Your task to perform on an android device: turn on sleep mode Image 0: 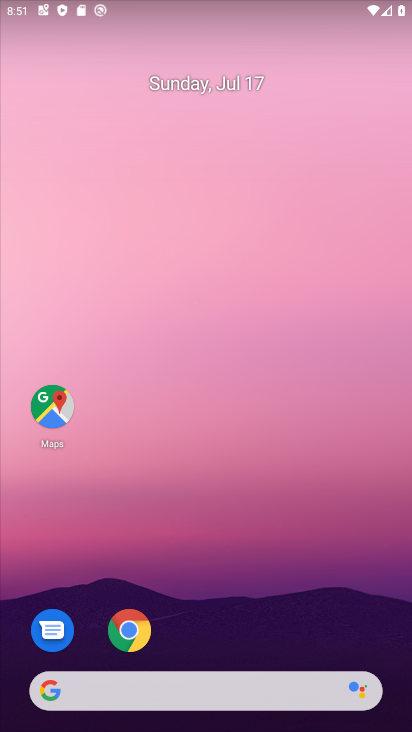
Step 0: drag from (348, 607) to (370, 66)
Your task to perform on an android device: turn on sleep mode Image 1: 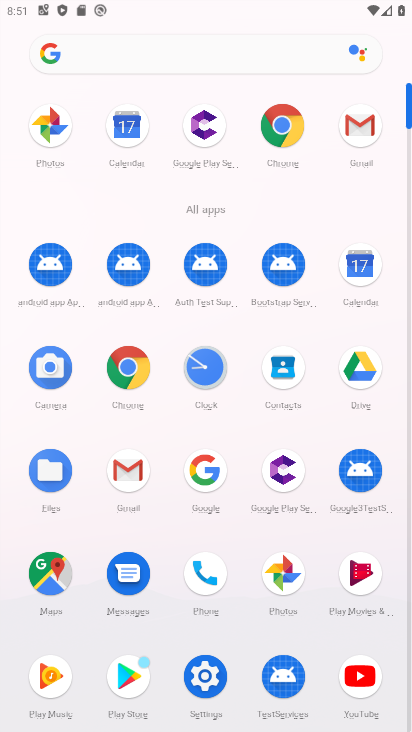
Step 1: click (205, 673)
Your task to perform on an android device: turn on sleep mode Image 2: 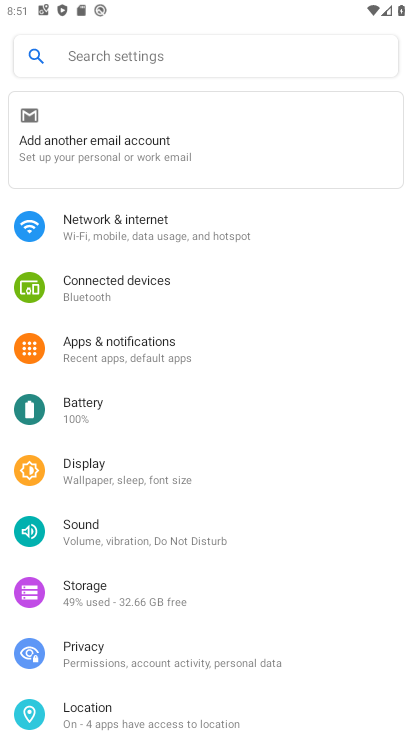
Step 2: drag from (363, 575) to (367, 471)
Your task to perform on an android device: turn on sleep mode Image 3: 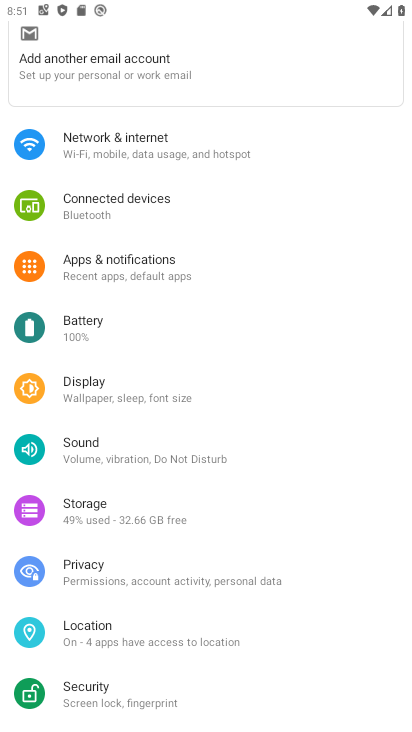
Step 3: drag from (345, 587) to (338, 483)
Your task to perform on an android device: turn on sleep mode Image 4: 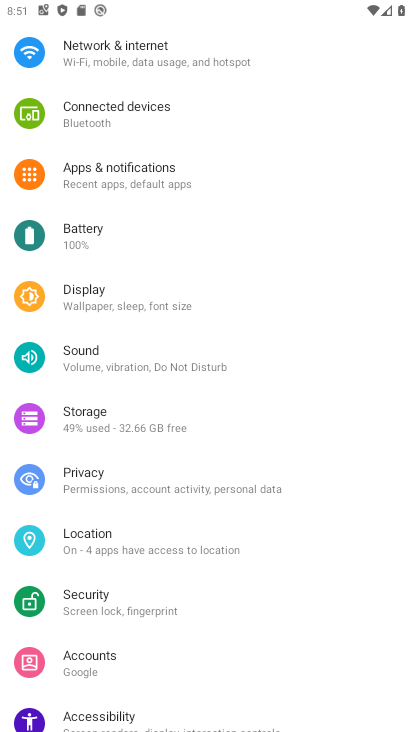
Step 4: drag from (334, 590) to (333, 473)
Your task to perform on an android device: turn on sleep mode Image 5: 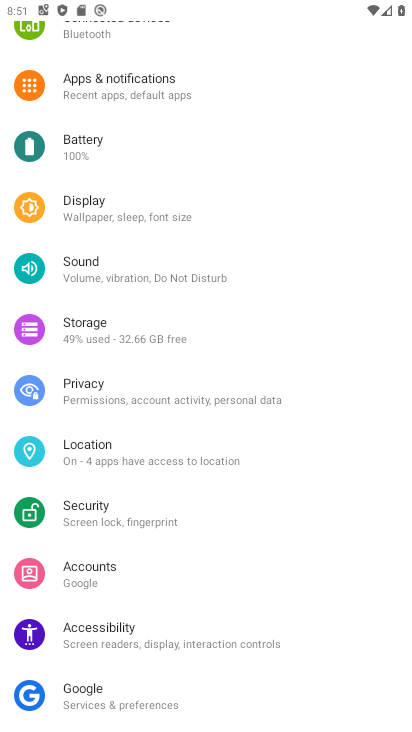
Step 5: drag from (345, 633) to (346, 492)
Your task to perform on an android device: turn on sleep mode Image 6: 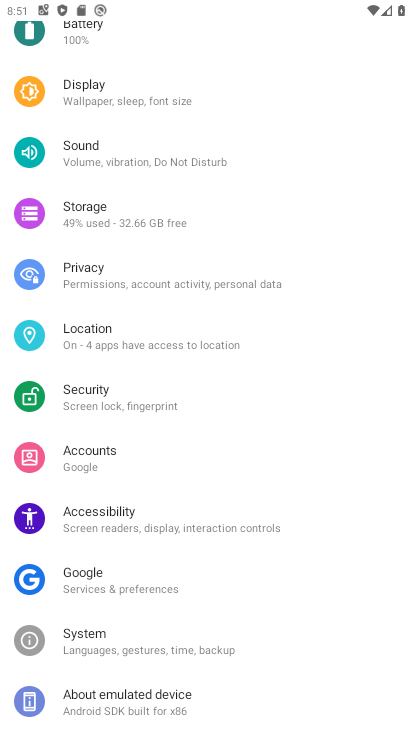
Step 6: drag from (327, 573) to (326, 450)
Your task to perform on an android device: turn on sleep mode Image 7: 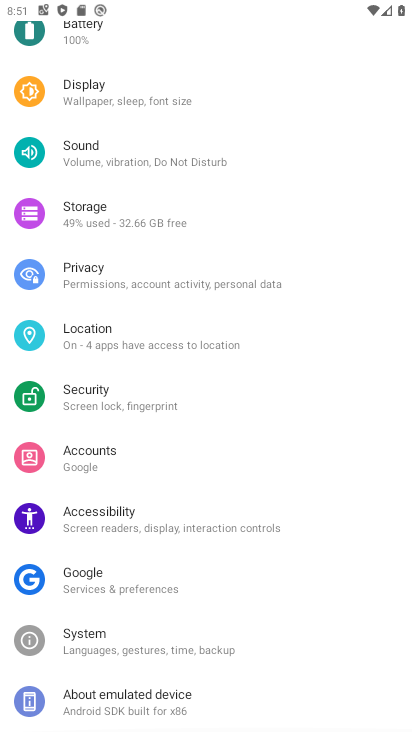
Step 7: drag from (335, 342) to (341, 424)
Your task to perform on an android device: turn on sleep mode Image 8: 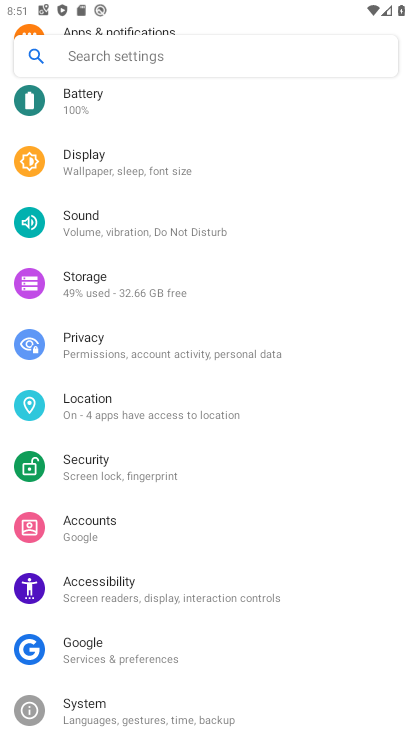
Step 8: drag from (336, 327) to (336, 396)
Your task to perform on an android device: turn on sleep mode Image 9: 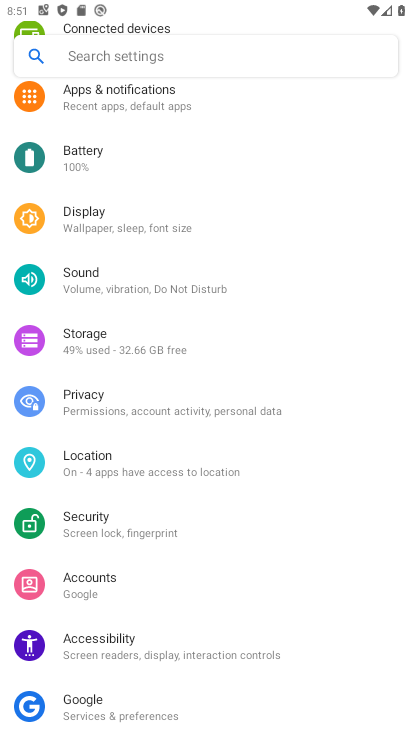
Step 9: drag from (336, 344) to (344, 429)
Your task to perform on an android device: turn on sleep mode Image 10: 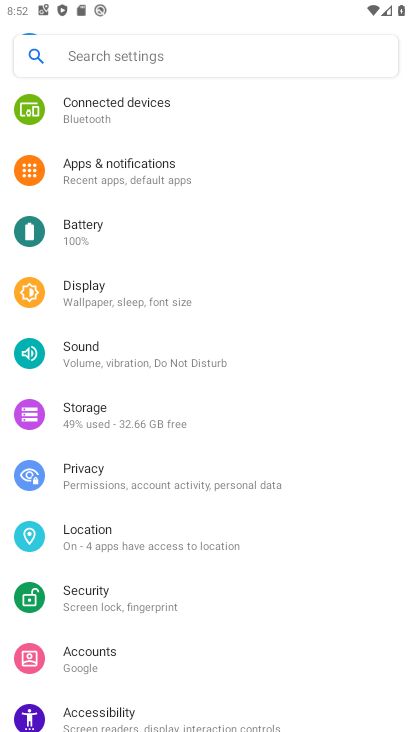
Step 10: drag from (336, 281) to (337, 417)
Your task to perform on an android device: turn on sleep mode Image 11: 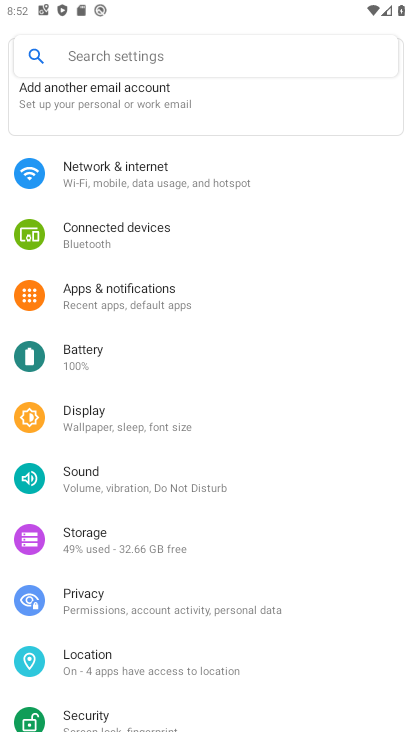
Step 11: drag from (330, 265) to (314, 446)
Your task to perform on an android device: turn on sleep mode Image 12: 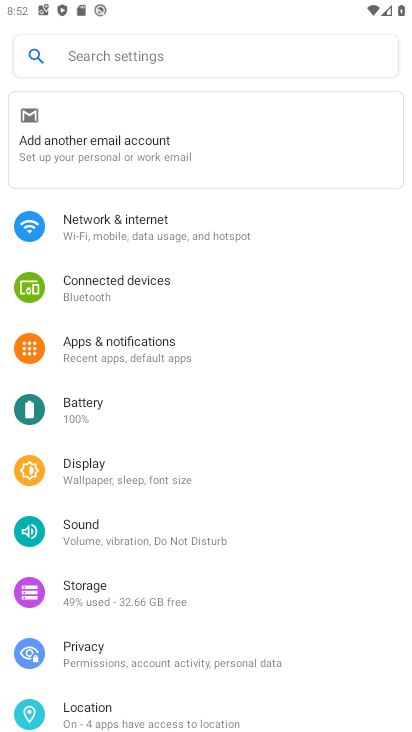
Step 12: click (225, 474)
Your task to perform on an android device: turn on sleep mode Image 13: 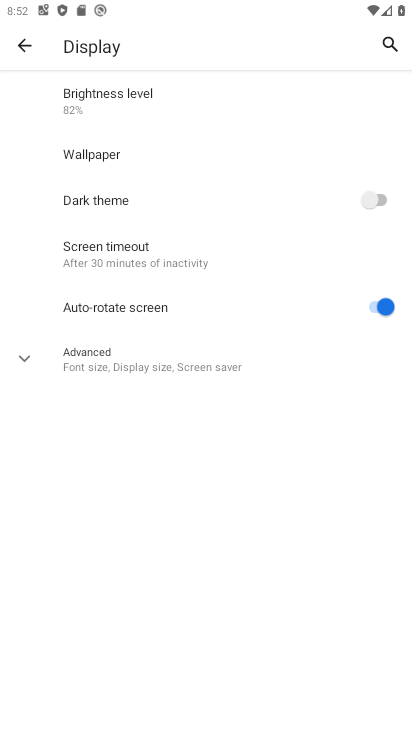
Step 13: click (224, 358)
Your task to perform on an android device: turn on sleep mode Image 14: 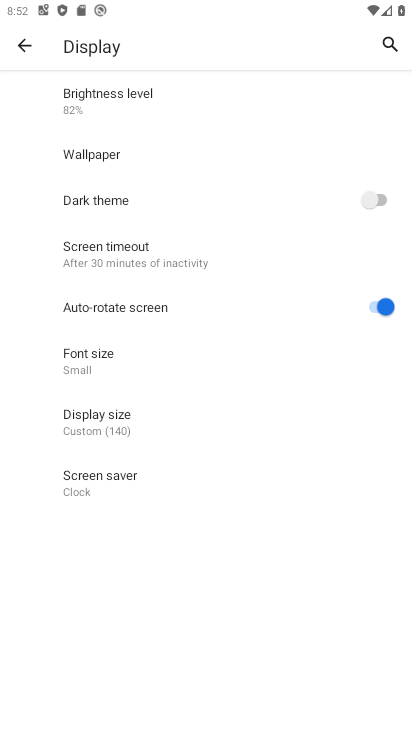
Step 14: task complete